Your task to perform on an android device: toggle wifi Image 0: 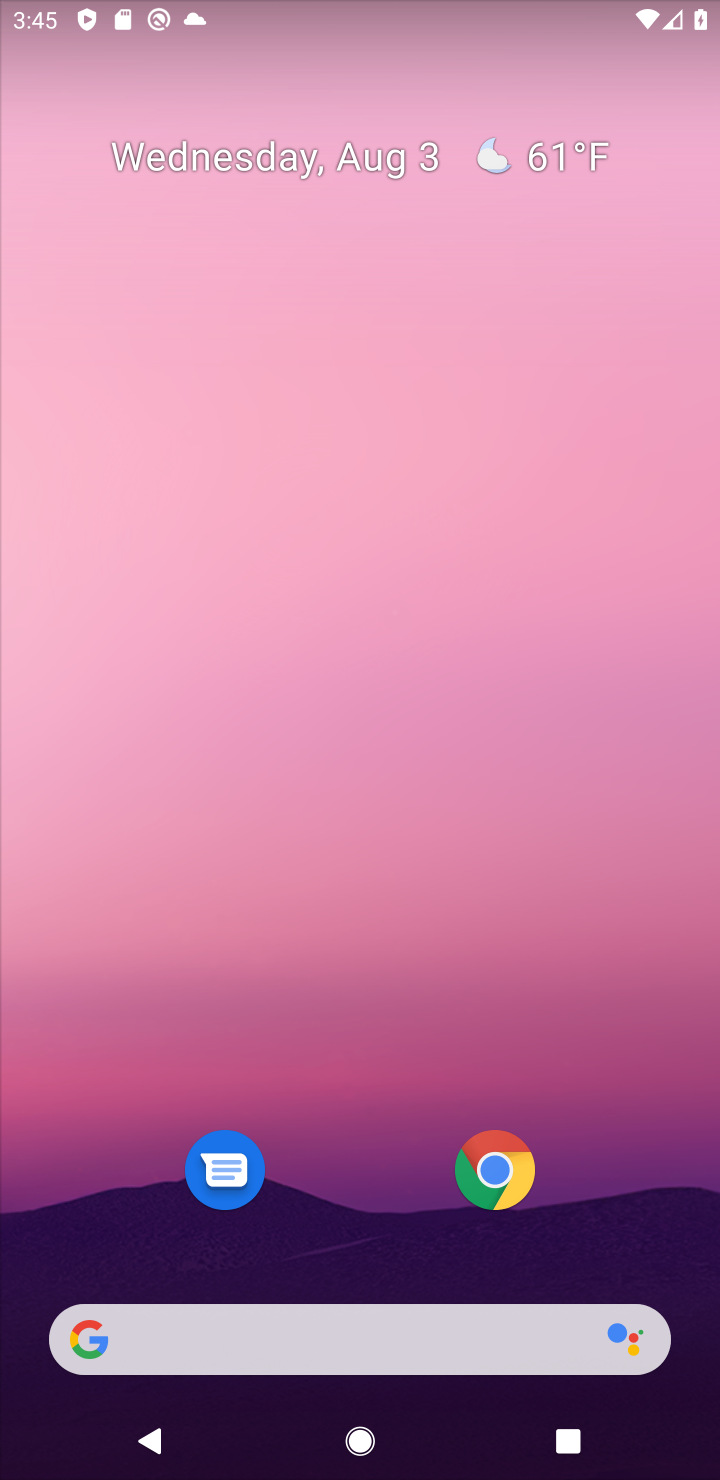
Step 0: click (323, 1244)
Your task to perform on an android device: toggle wifi Image 1: 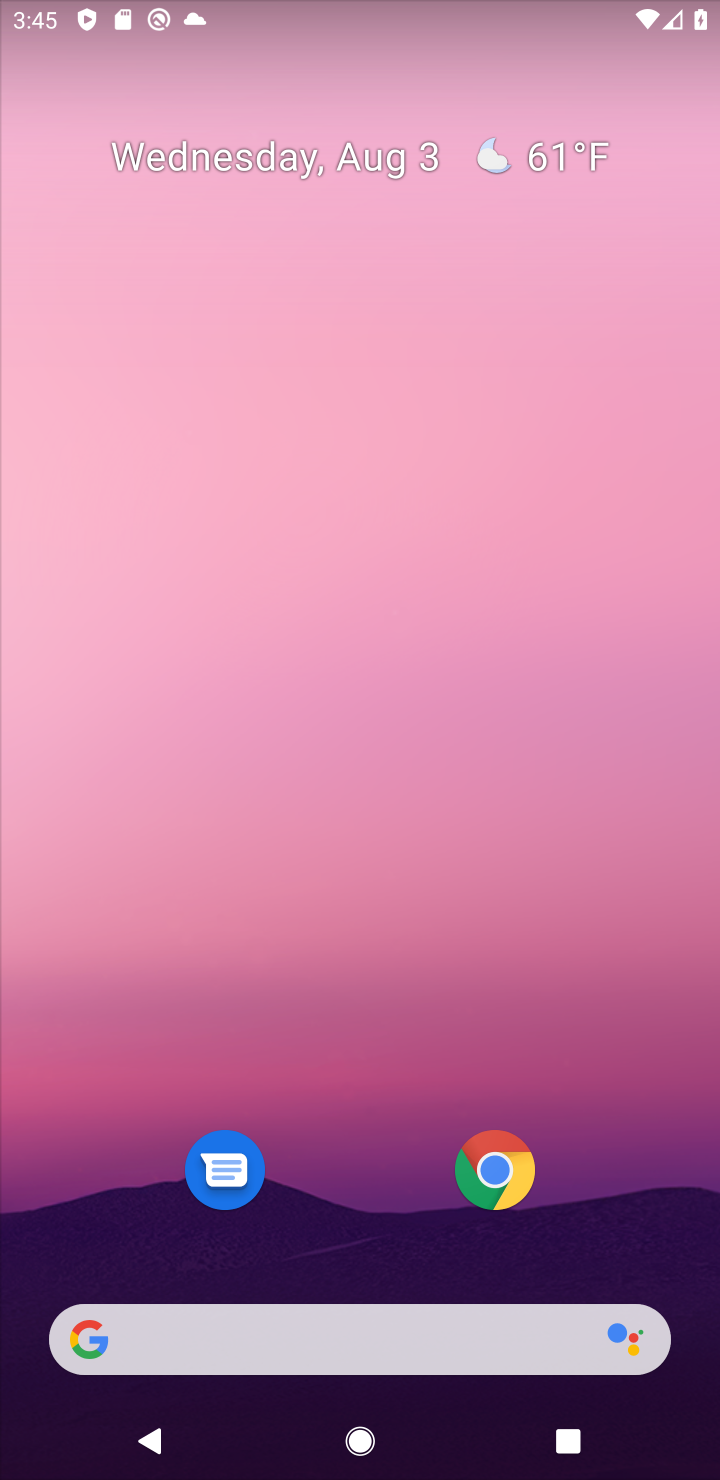
Step 1: drag from (347, 748) to (389, 114)
Your task to perform on an android device: toggle wifi Image 2: 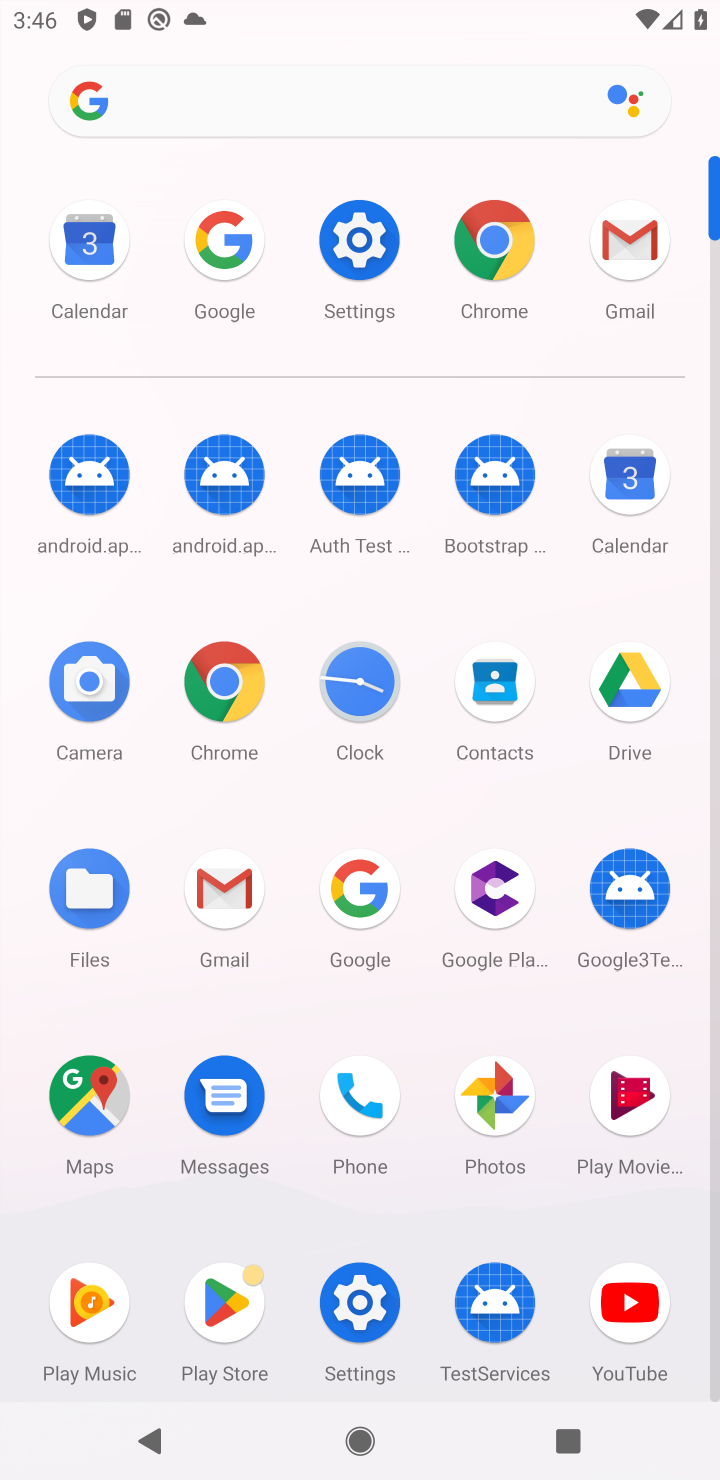
Step 2: click (353, 1293)
Your task to perform on an android device: toggle wifi Image 3: 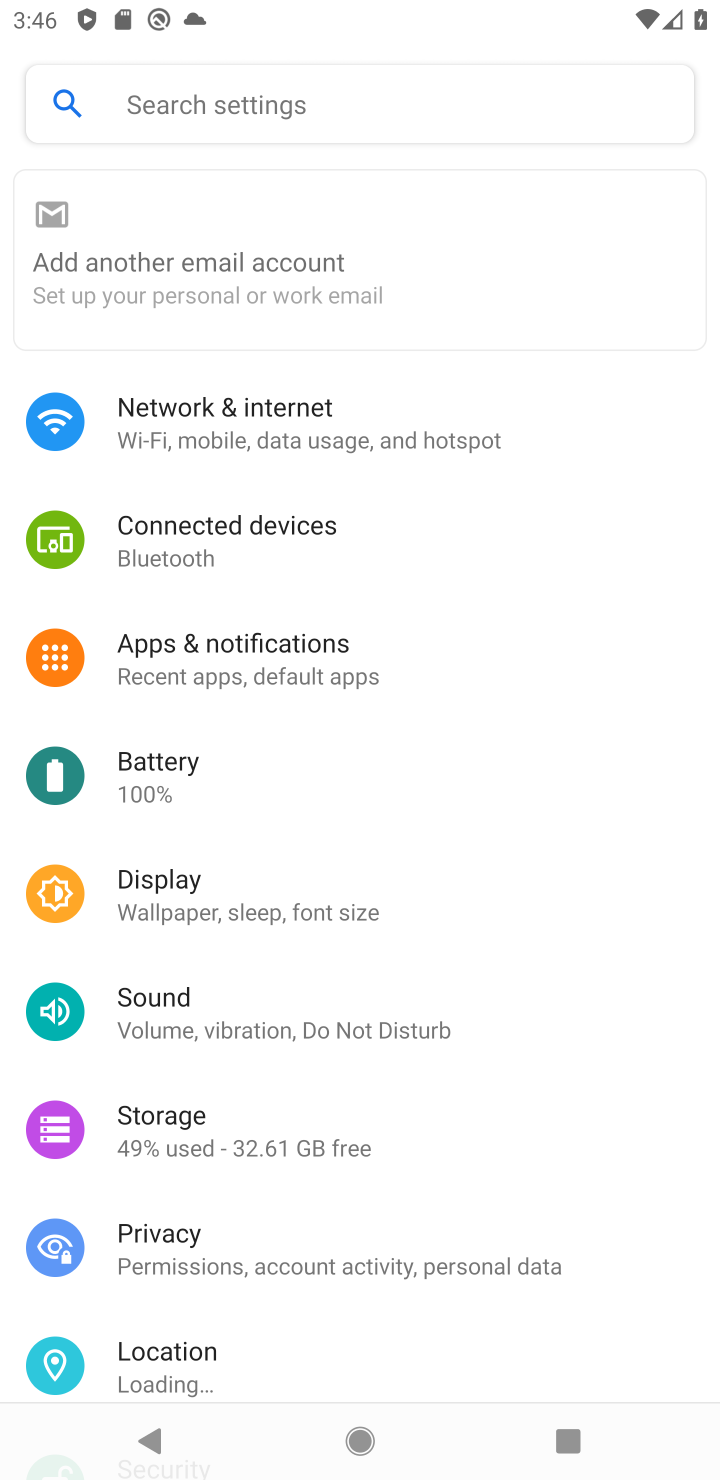
Step 3: click (240, 490)
Your task to perform on an android device: toggle wifi Image 4: 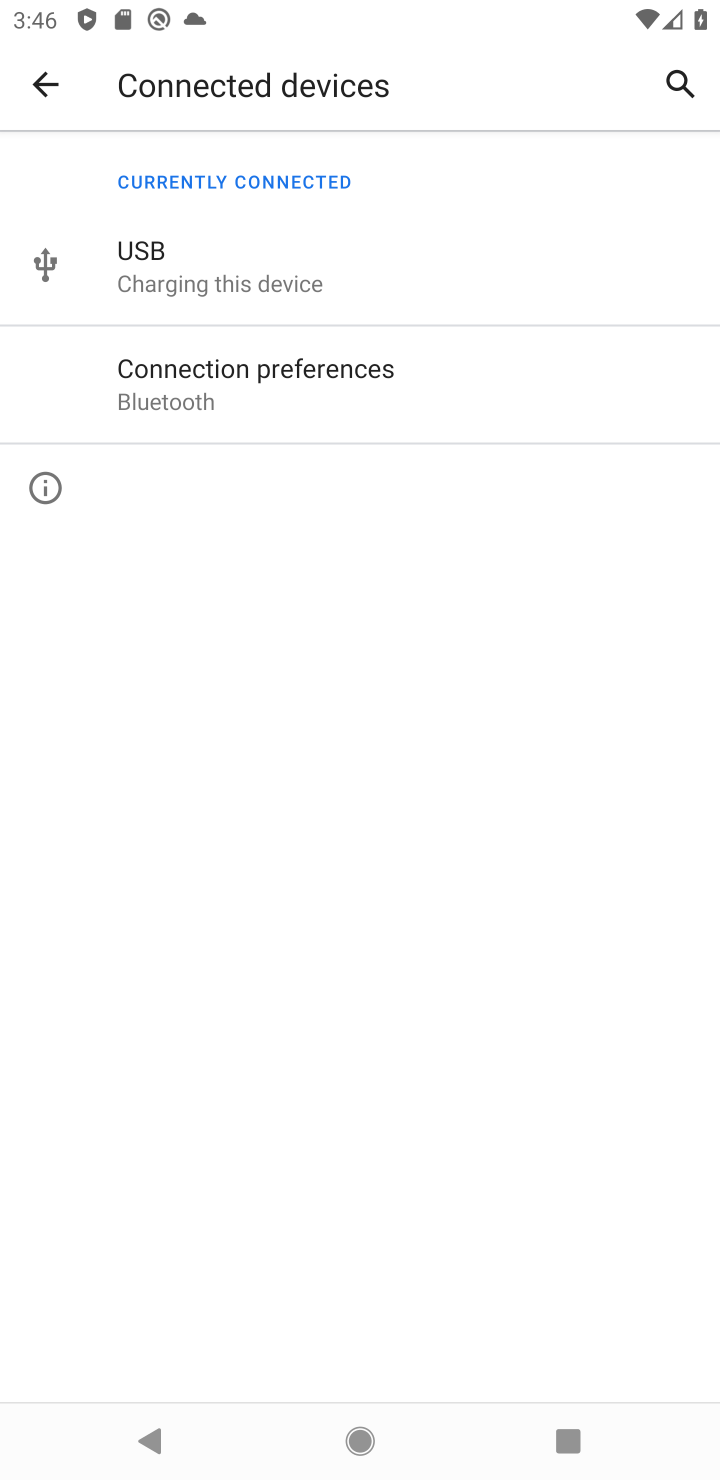
Step 4: click (29, 86)
Your task to perform on an android device: toggle wifi Image 5: 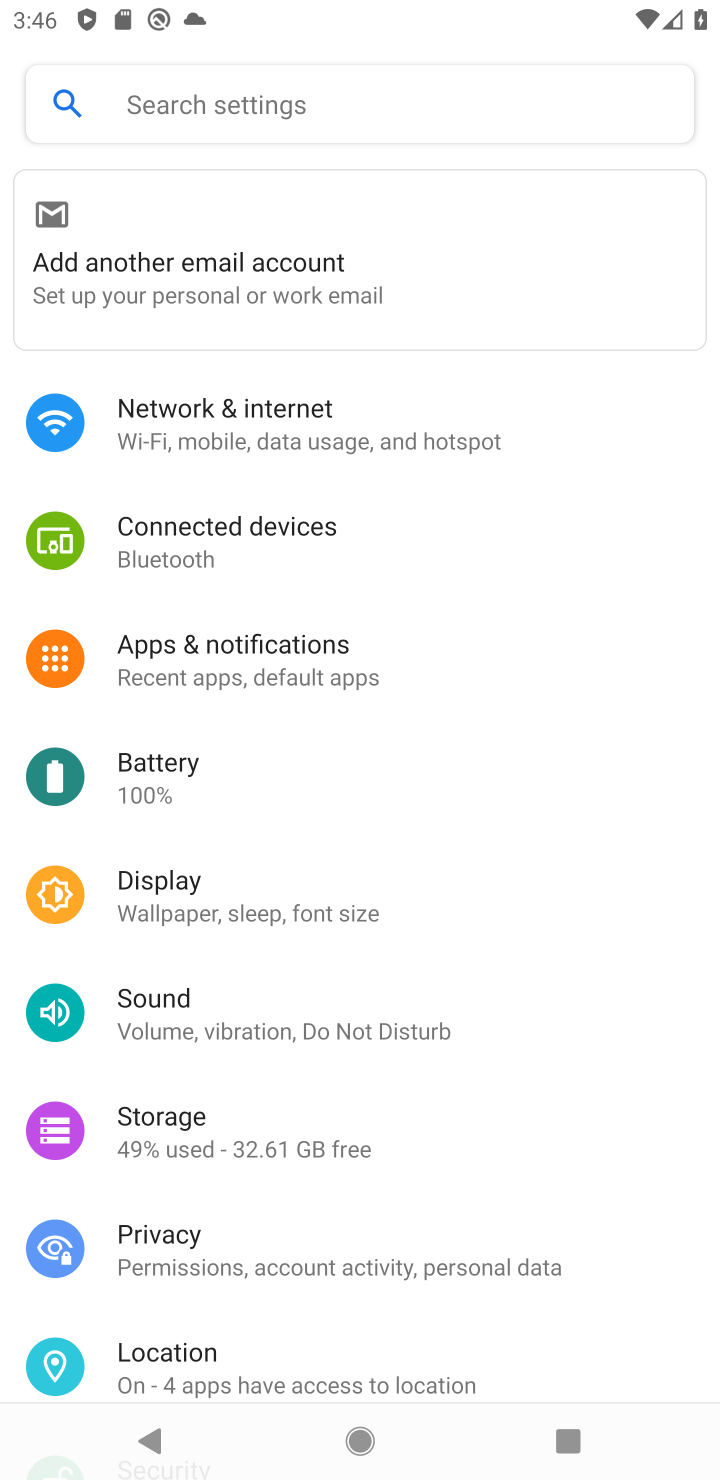
Step 5: click (247, 406)
Your task to perform on an android device: toggle wifi Image 6: 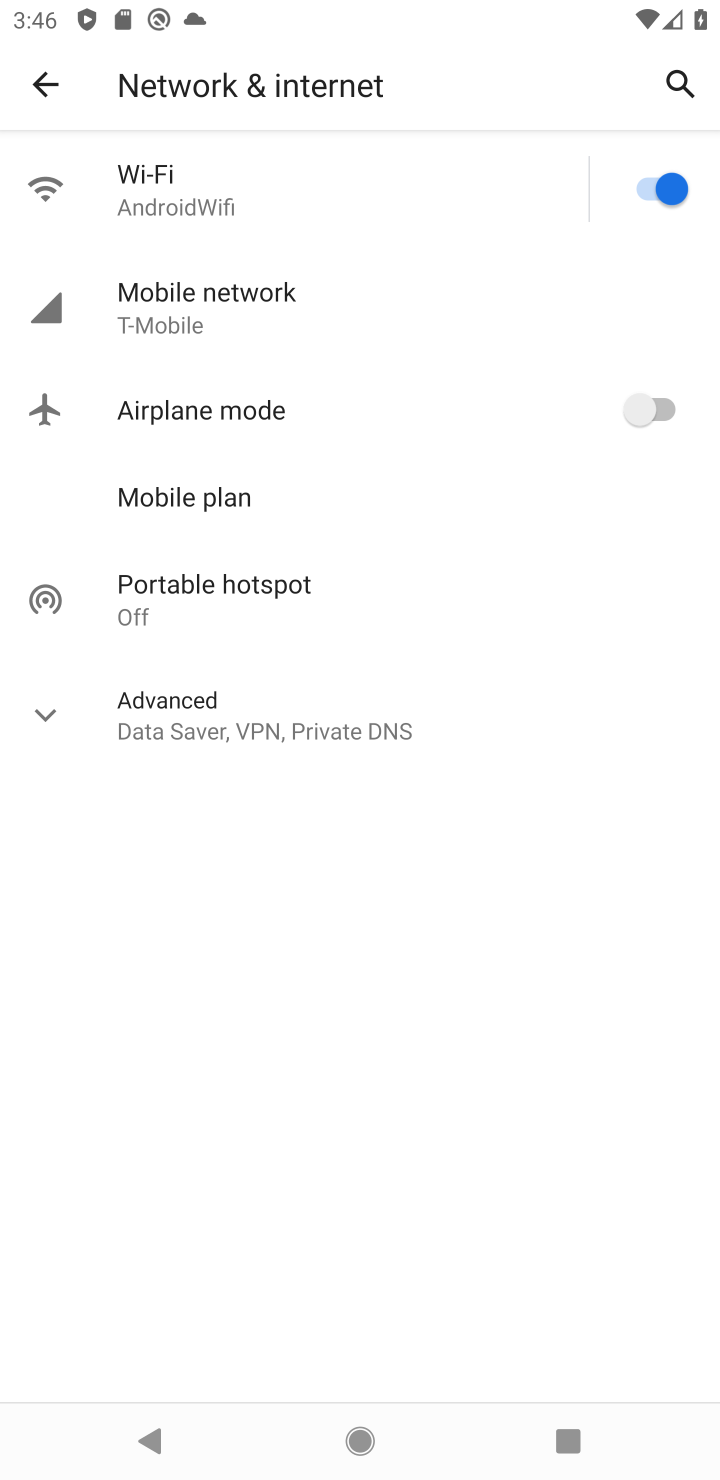
Step 6: click (654, 197)
Your task to perform on an android device: toggle wifi Image 7: 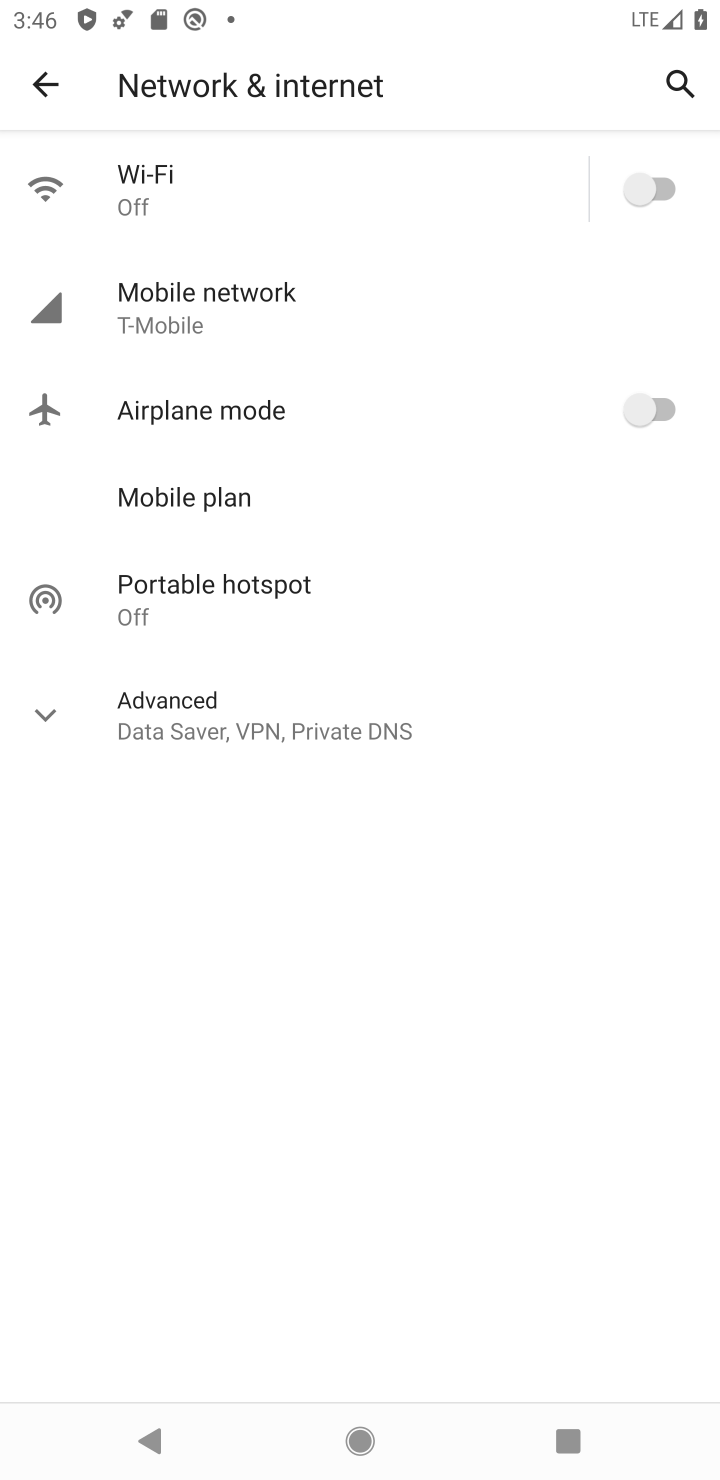
Step 7: task complete